Your task to perform on an android device: clear history in the chrome app Image 0: 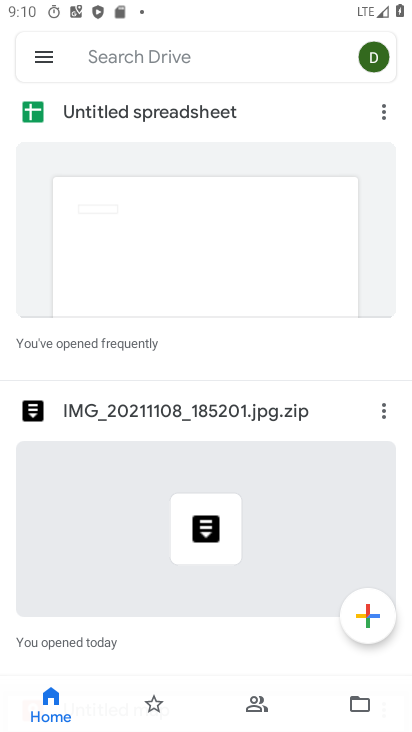
Step 0: press back button
Your task to perform on an android device: clear history in the chrome app Image 1: 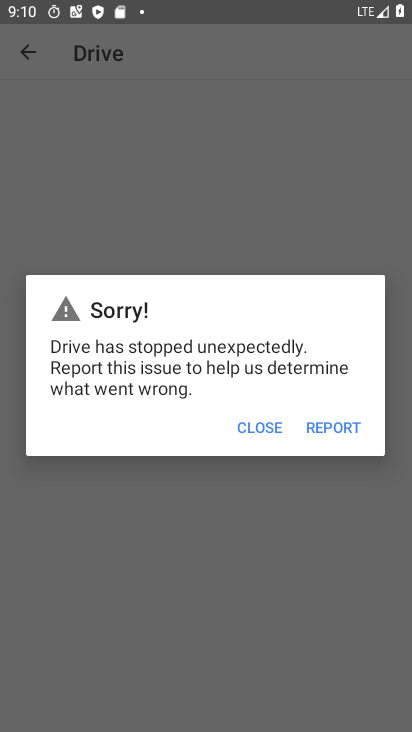
Step 1: press back button
Your task to perform on an android device: clear history in the chrome app Image 2: 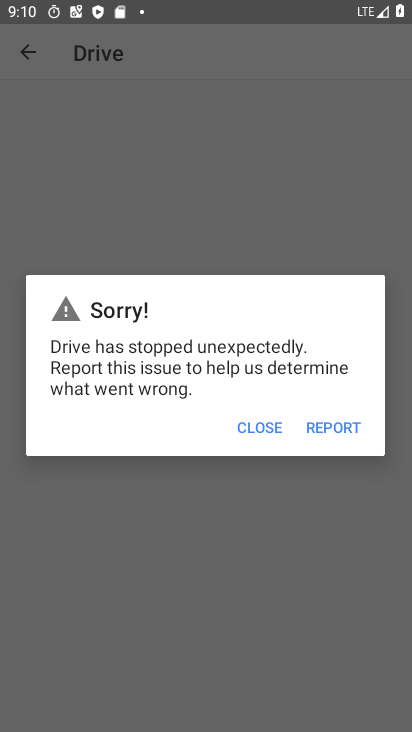
Step 2: press home button
Your task to perform on an android device: clear history in the chrome app Image 3: 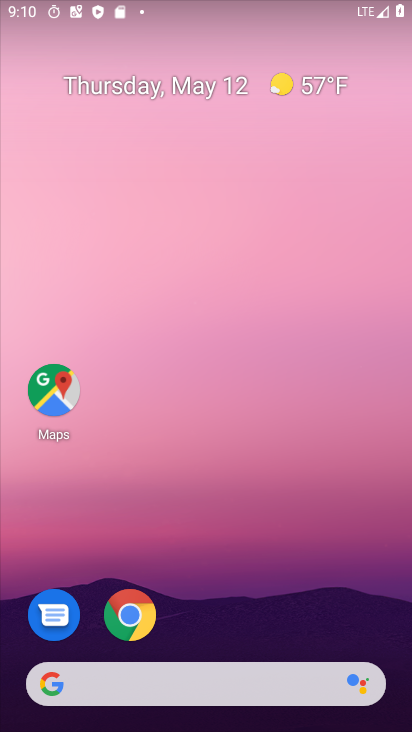
Step 3: drag from (250, 547) to (236, 76)
Your task to perform on an android device: clear history in the chrome app Image 4: 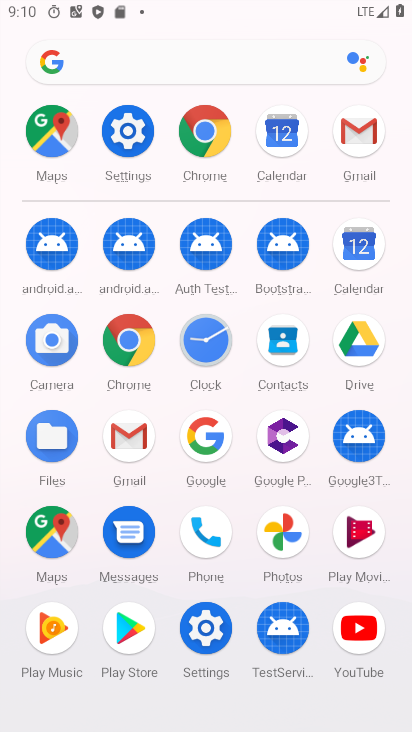
Step 4: drag from (0, 579) to (0, 322)
Your task to perform on an android device: clear history in the chrome app Image 5: 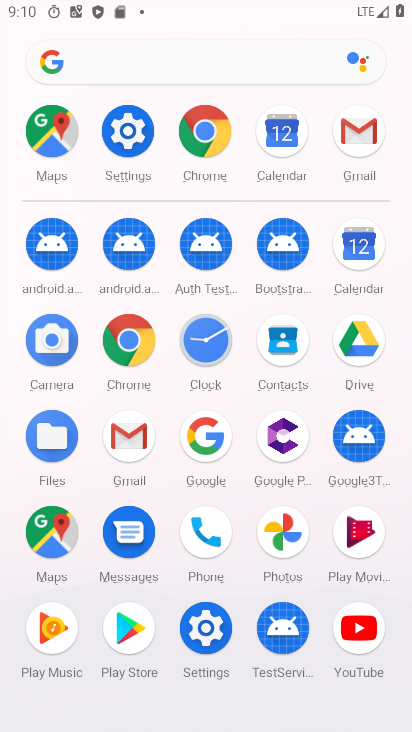
Step 5: click (123, 337)
Your task to perform on an android device: clear history in the chrome app Image 6: 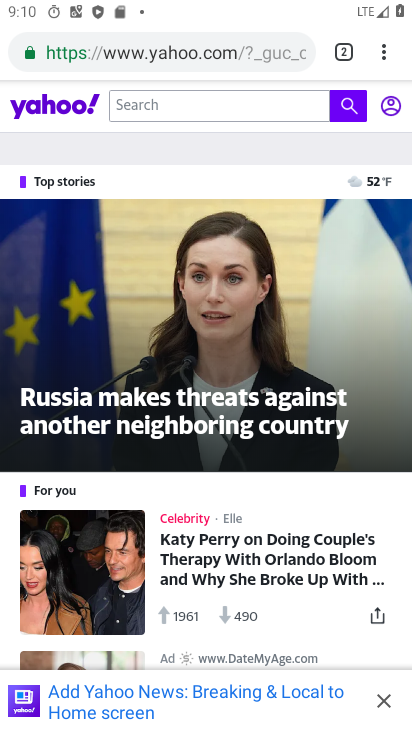
Step 6: drag from (379, 54) to (230, 288)
Your task to perform on an android device: clear history in the chrome app Image 7: 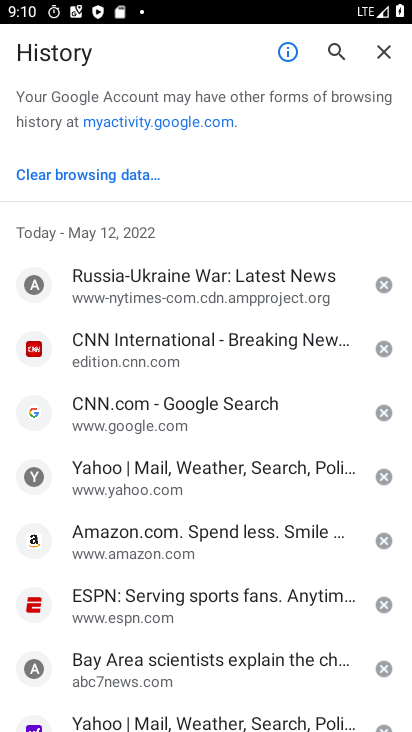
Step 7: click (90, 181)
Your task to perform on an android device: clear history in the chrome app Image 8: 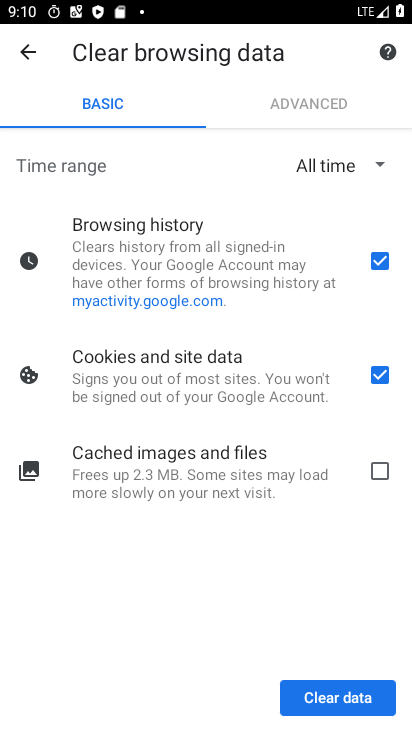
Step 8: click (316, 695)
Your task to perform on an android device: clear history in the chrome app Image 9: 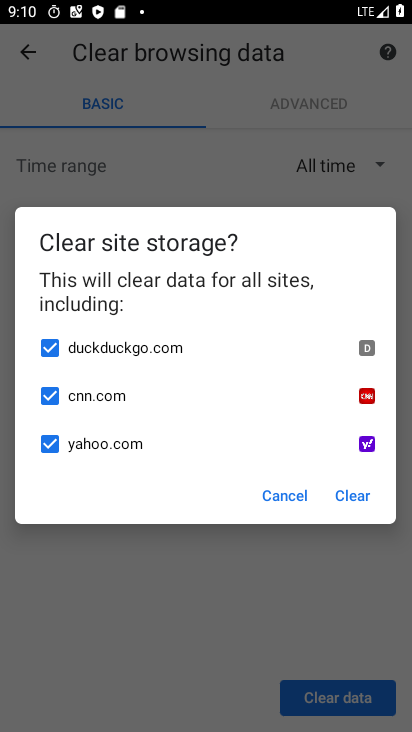
Step 9: click (353, 501)
Your task to perform on an android device: clear history in the chrome app Image 10: 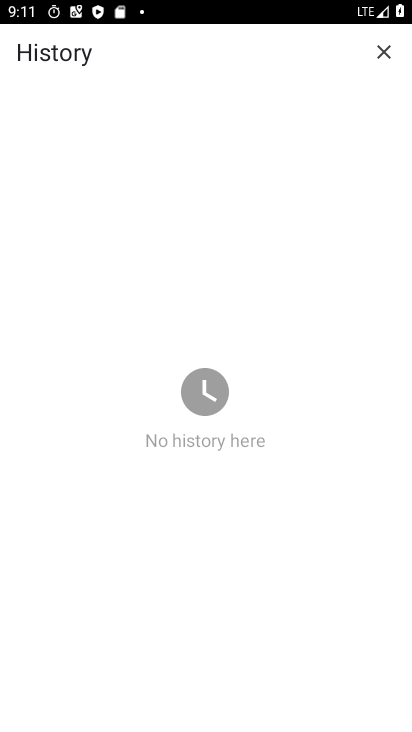
Step 10: task complete